Your task to perform on an android device: Open display settings Image 0: 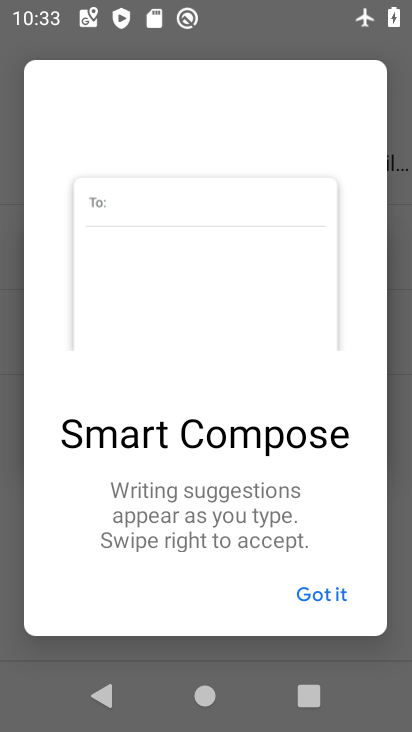
Step 0: press home button
Your task to perform on an android device: Open display settings Image 1: 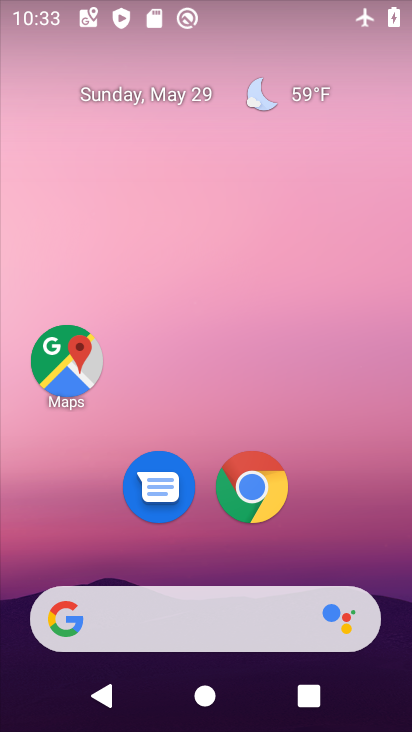
Step 1: drag from (399, 712) to (350, 120)
Your task to perform on an android device: Open display settings Image 2: 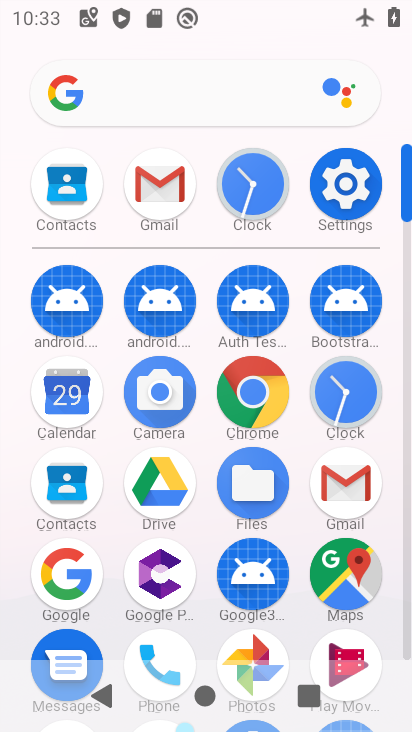
Step 2: click (336, 183)
Your task to perform on an android device: Open display settings Image 3: 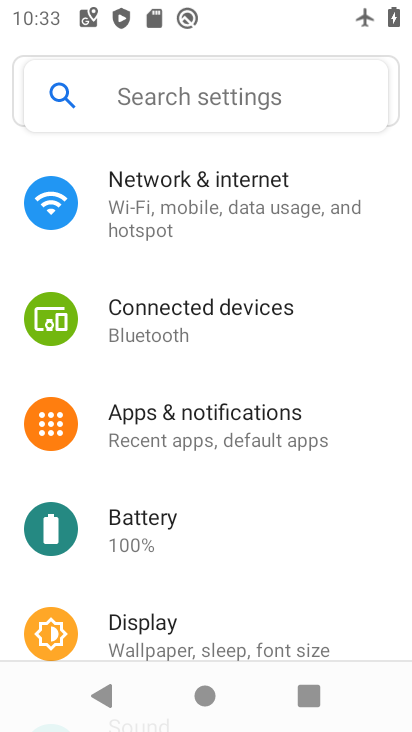
Step 3: click (134, 626)
Your task to perform on an android device: Open display settings Image 4: 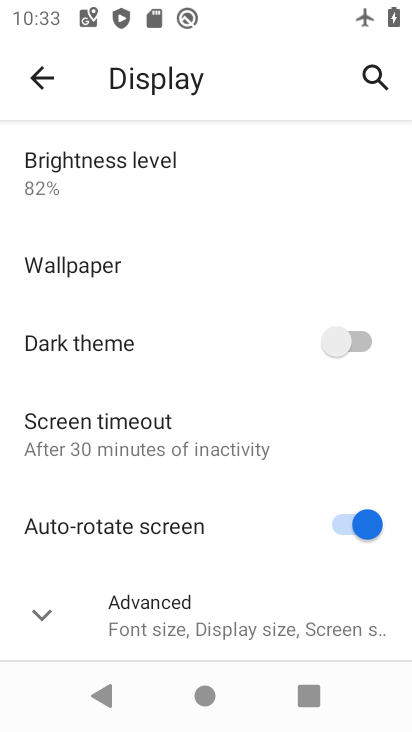
Step 4: task complete